Your task to perform on an android device: Open eBay Image 0: 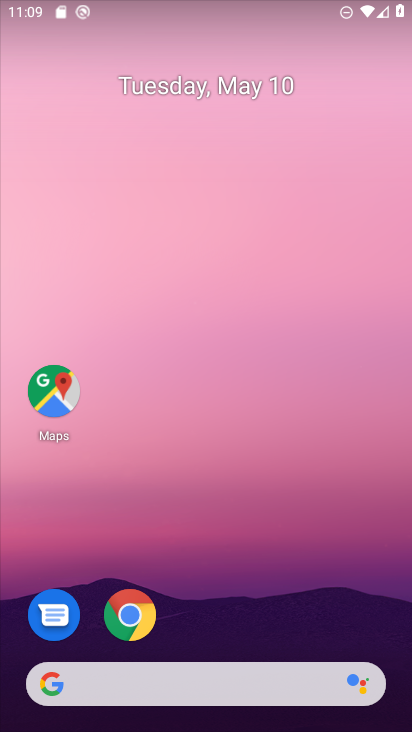
Step 0: drag from (227, 614) to (231, 143)
Your task to perform on an android device: Open eBay Image 1: 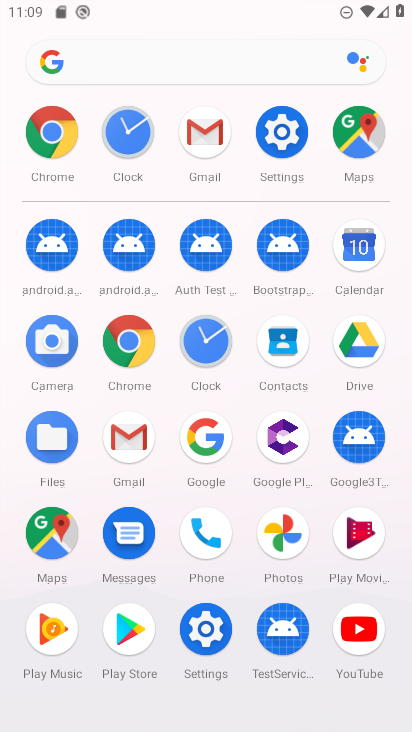
Step 1: click (207, 70)
Your task to perform on an android device: Open eBay Image 2: 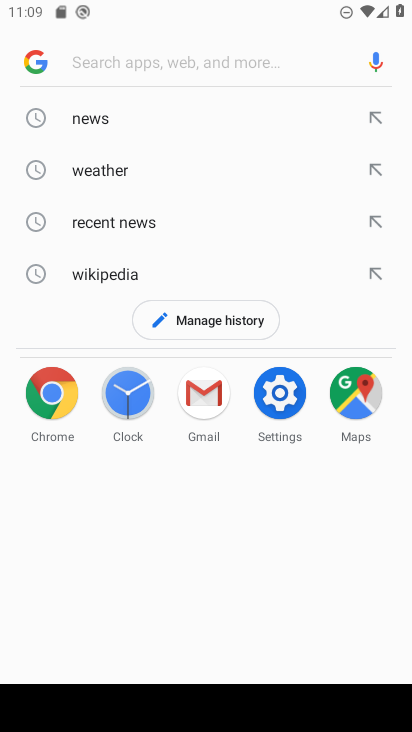
Step 2: type "ebay"
Your task to perform on an android device: Open eBay Image 3: 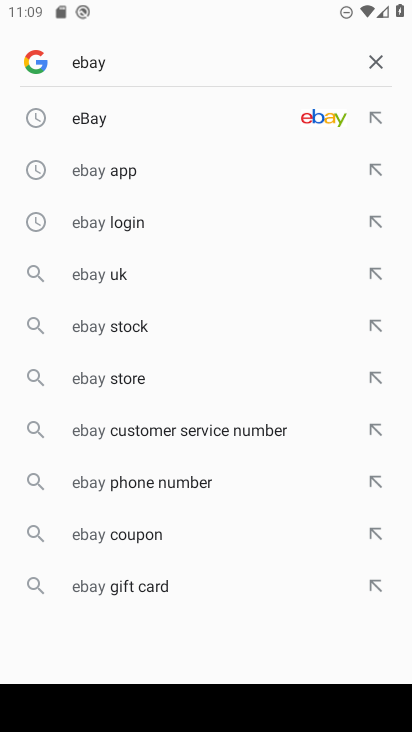
Step 3: click (166, 119)
Your task to perform on an android device: Open eBay Image 4: 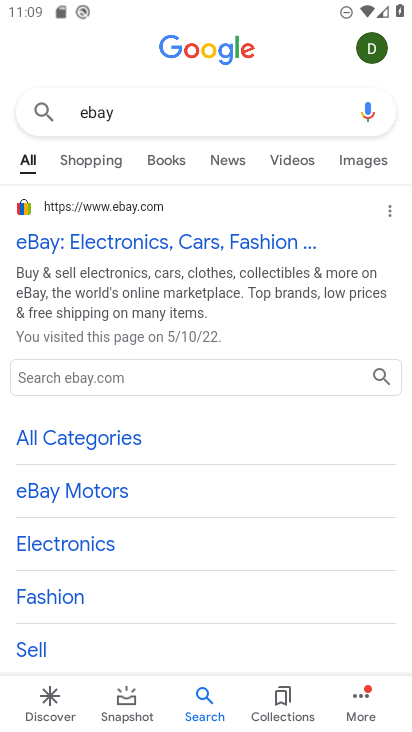
Step 4: task complete